Your task to perform on an android device: turn on improve location accuracy Image 0: 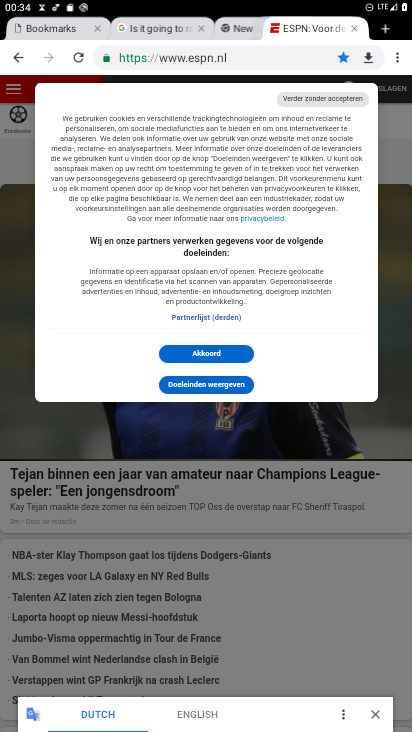
Step 0: press home button
Your task to perform on an android device: turn on improve location accuracy Image 1: 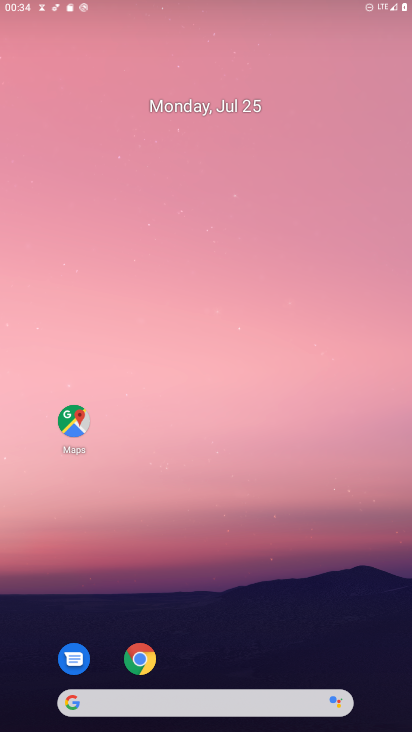
Step 1: drag from (212, 678) to (236, 276)
Your task to perform on an android device: turn on improve location accuracy Image 2: 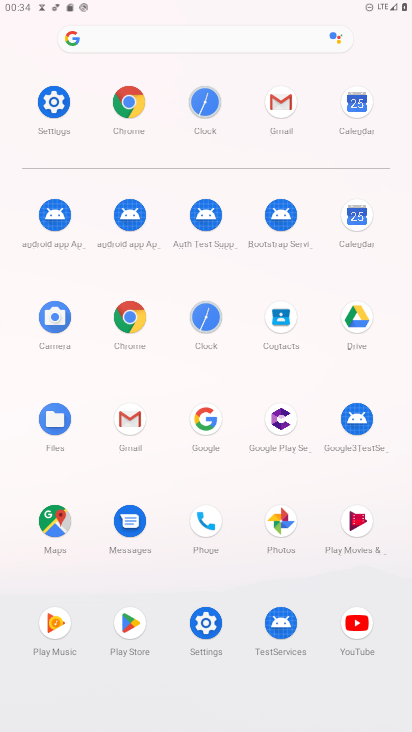
Step 2: click (59, 99)
Your task to perform on an android device: turn on improve location accuracy Image 3: 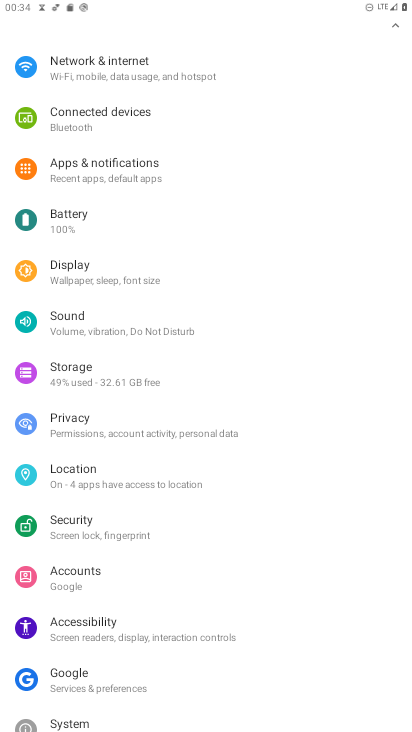
Step 3: click (138, 464)
Your task to perform on an android device: turn on improve location accuracy Image 4: 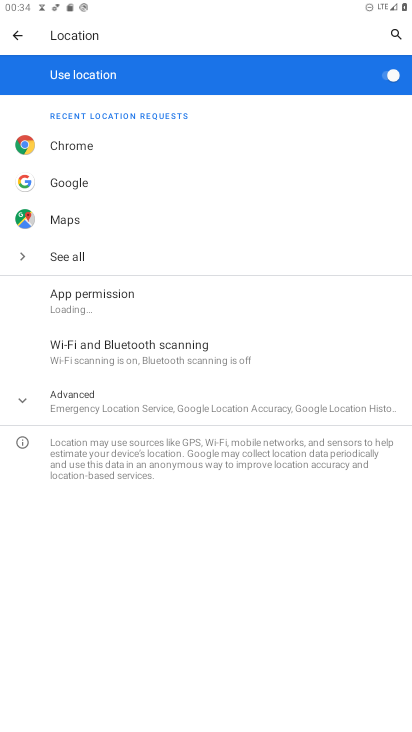
Step 4: click (130, 394)
Your task to perform on an android device: turn on improve location accuracy Image 5: 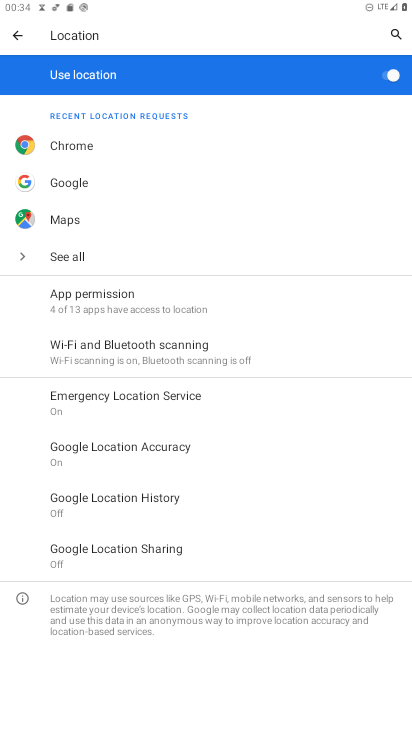
Step 5: click (126, 510)
Your task to perform on an android device: turn on improve location accuracy Image 6: 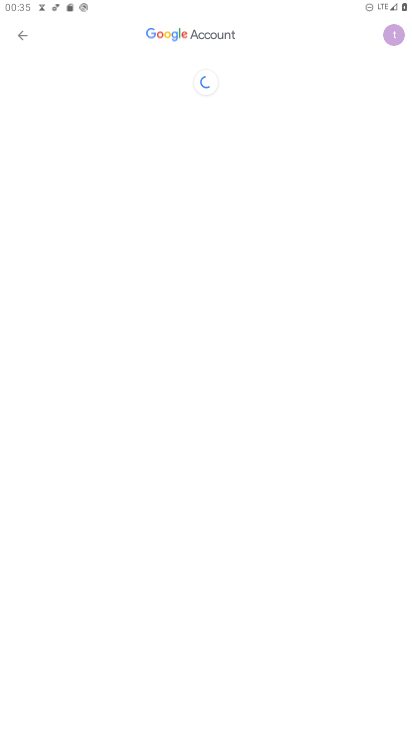
Step 6: press back button
Your task to perform on an android device: turn on improve location accuracy Image 7: 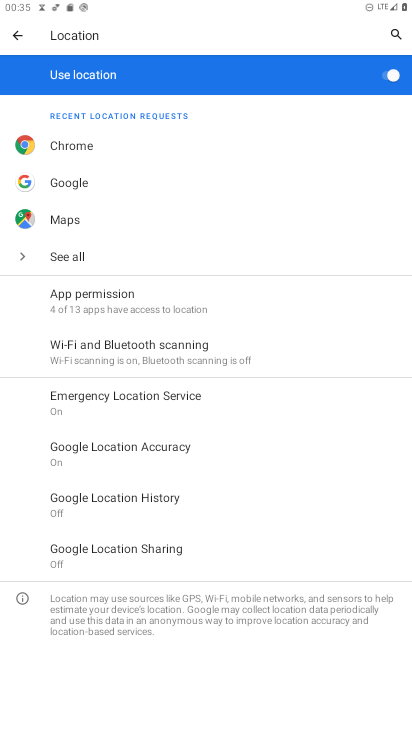
Step 7: click (177, 439)
Your task to perform on an android device: turn on improve location accuracy Image 8: 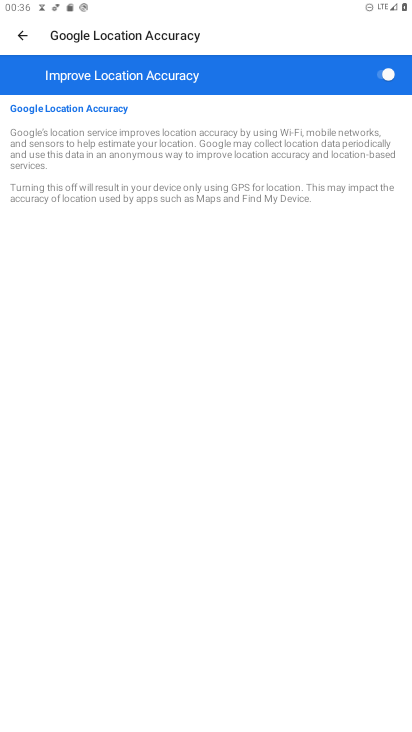
Step 8: task complete